Your task to perform on an android device: turn on bluetooth scan Image 0: 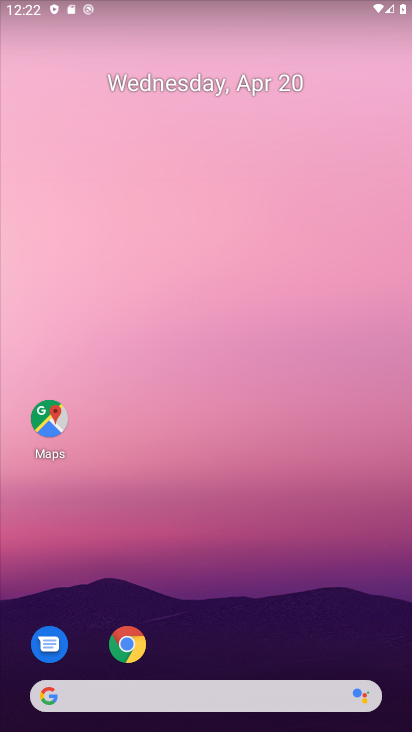
Step 0: drag from (278, 653) to (237, 83)
Your task to perform on an android device: turn on bluetooth scan Image 1: 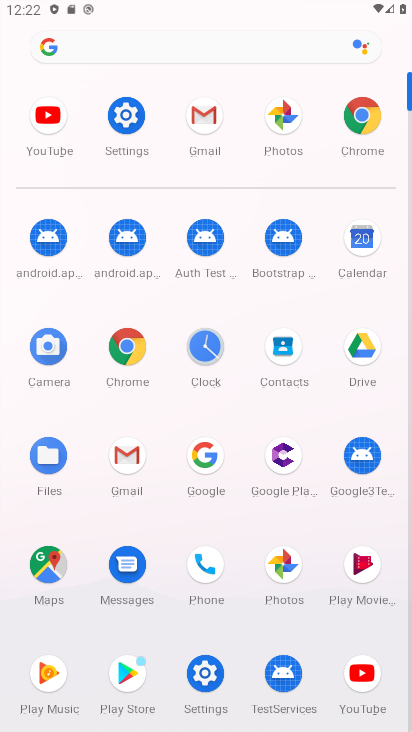
Step 1: click (137, 115)
Your task to perform on an android device: turn on bluetooth scan Image 2: 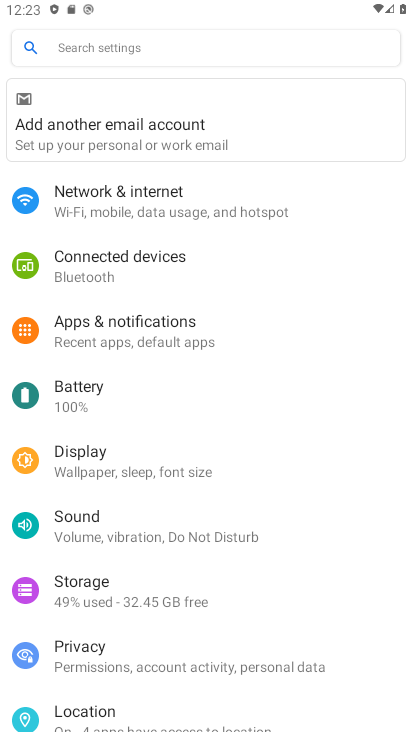
Step 2: click (116, 705)
Your task to perform on an android device: turn on bluetooth scan Image 3: 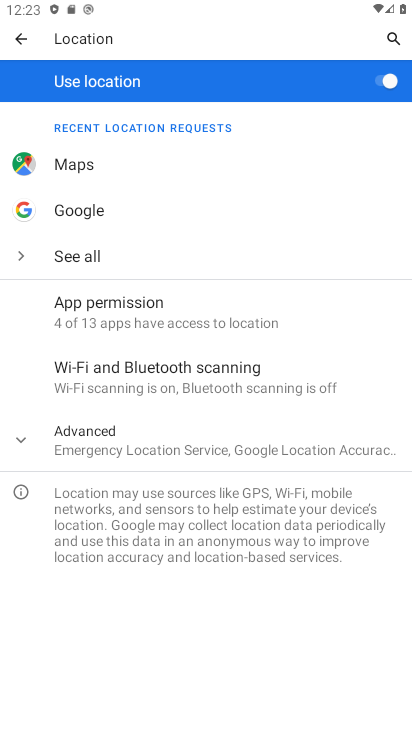
Step 3: click (192, 379)
Your task to perform on an android device: turn on bluetooth scan Image 4: 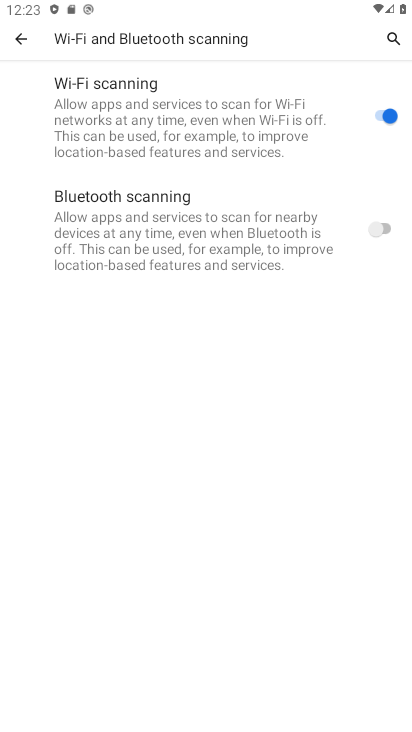
Step 4: click (369, 208)
Your task to perform on an android device: turn on bluetooth scan Image 5: 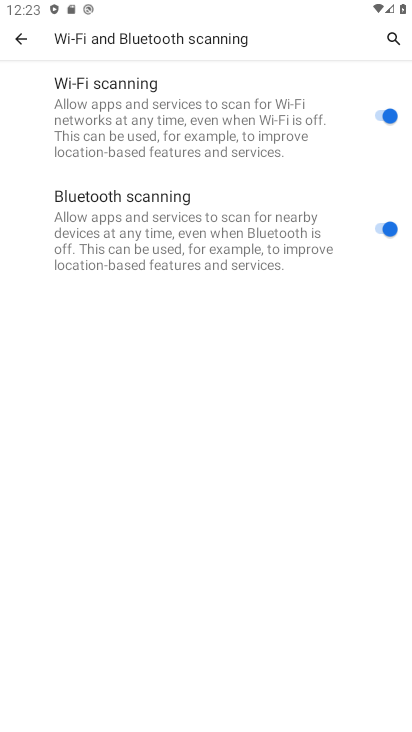
Step 5: task complete